Your task to perform on an android device: change the clock display to show seconds Image 0: 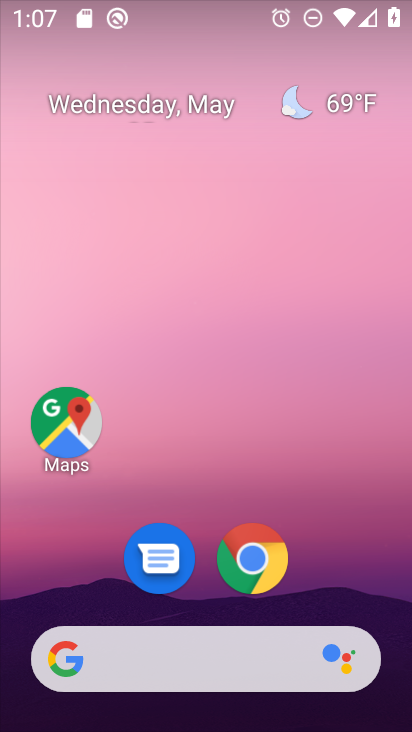
Step 0: drag from (394, 646) to (301, 74)
Your task to perform on an android device: change the clock display to show seconds Image 1: 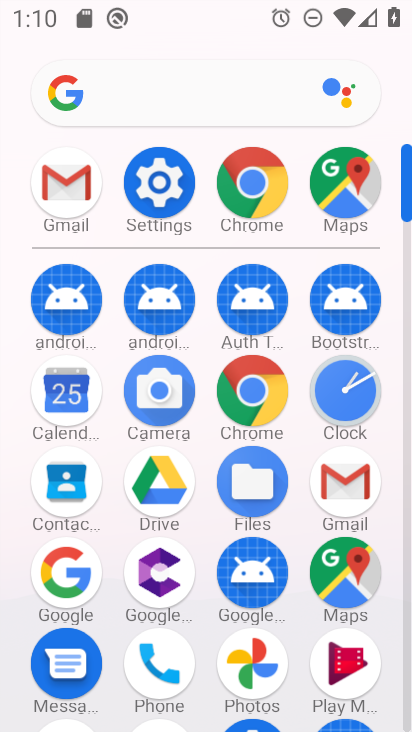
Step 1: click (354, 399)
Your task to perform on an android device: change the clock display to show seconds Image 2: 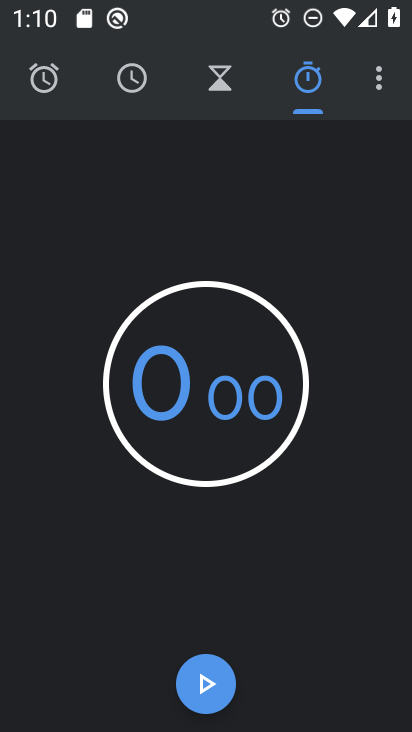
Step 2: click (376, 90)
Your task to perform on an android device: change the clock display to show seconds Image 3: 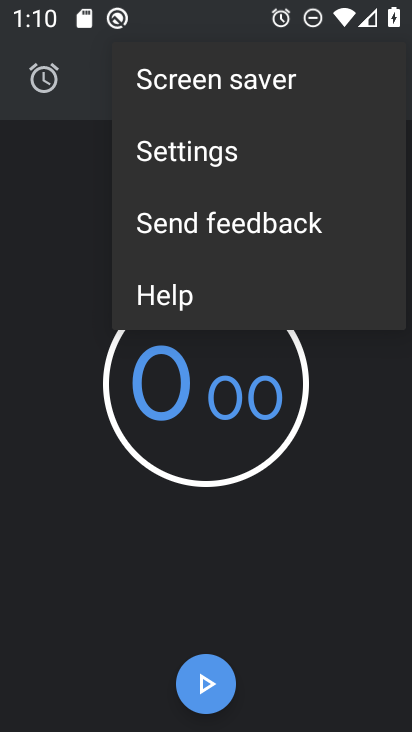
Step 3: click (283, 157)
Your task to perform on an android device: change the clock display to show seconds Image 4: 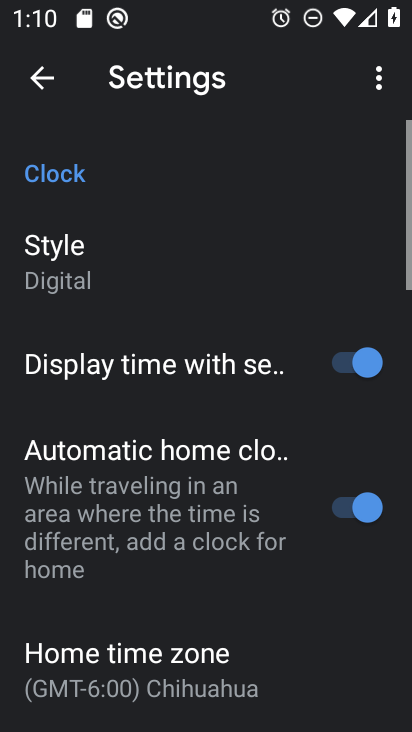
Step 4: click (361, 351)
Your task to perform on an android device: change the clock display to show seconds Image 5: 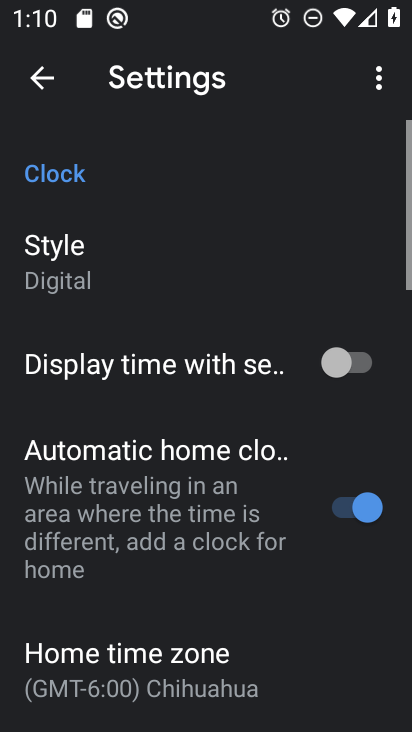
Step 5: task complete